Your task to perform on an android device: Open the calendar app, open the side menu, and click the "Day" option Image 0: 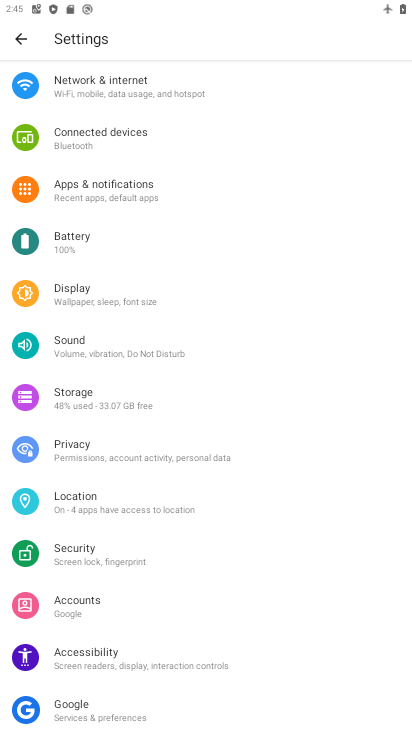
Step 0: press home button
Your task to perform on an android device: Open the calendar app, open the side menu, and click the "Day" option Image 1: 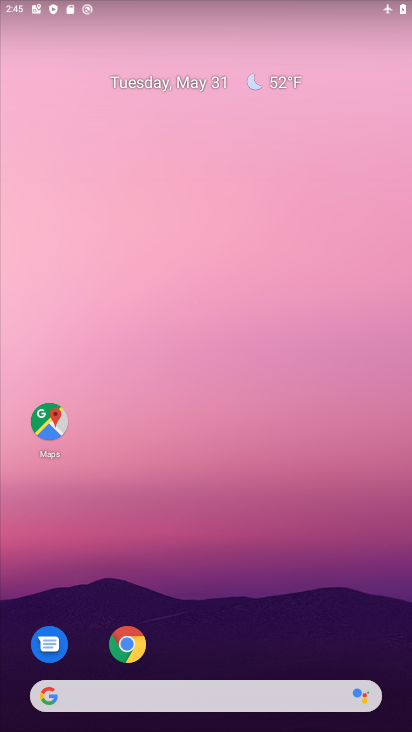
Step 1: drag from (104, 720) to (65, 135)
Your task to perform on an android device: Open the calendar app, open the side menu, and click the "Day" option Image 2: 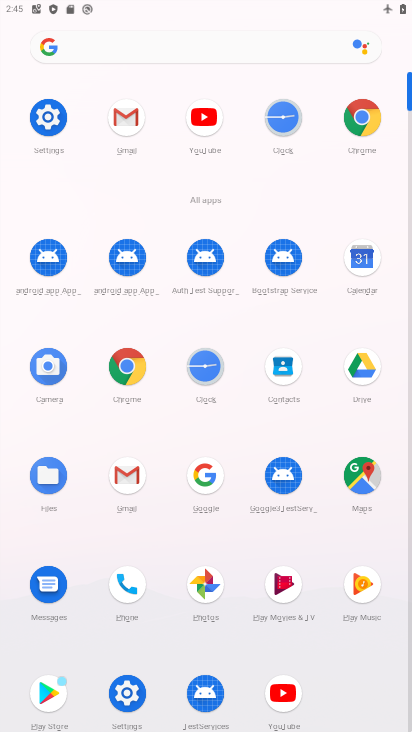
Step 2: click (349, 265)
Your task to perform on an android device: Open the calendar app, open the side menu, and click the "Day" option Image 3: 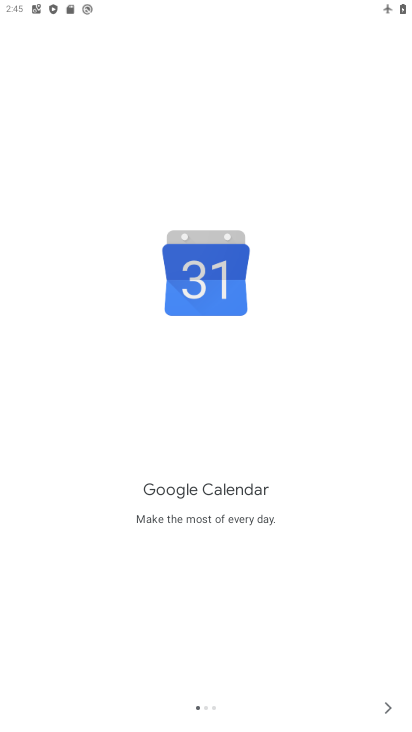
Step 3: click (384, 714)
Your task to perform on an android device: Open the calendar app, open the side menu, and click the "Day" option Image 4: 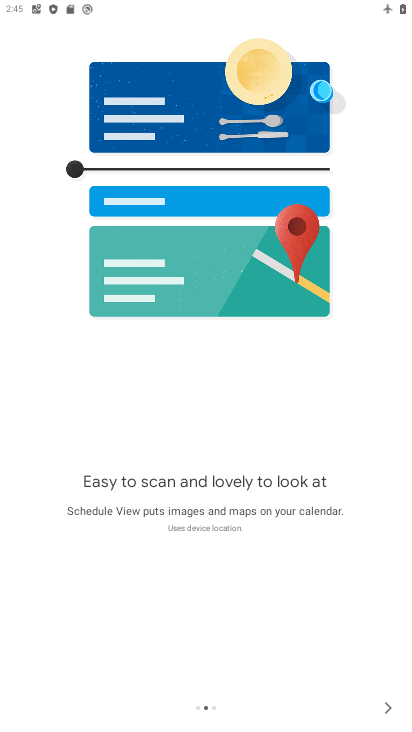
Step 4: click (384, 714)
Your task to perform on an android device: Open the calendar app, open the side menu, and click the "Day" option Image 5: 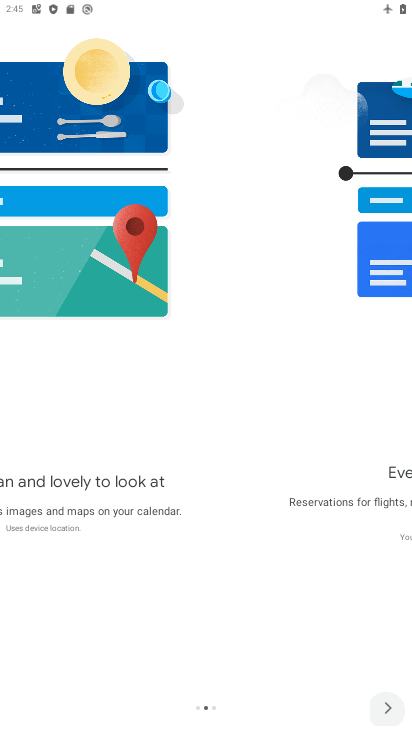
Step 5: click (384, 714)
Your task to perform on an android device: Open the calendar app, open the side menu, and click the "Day" option Image 6: 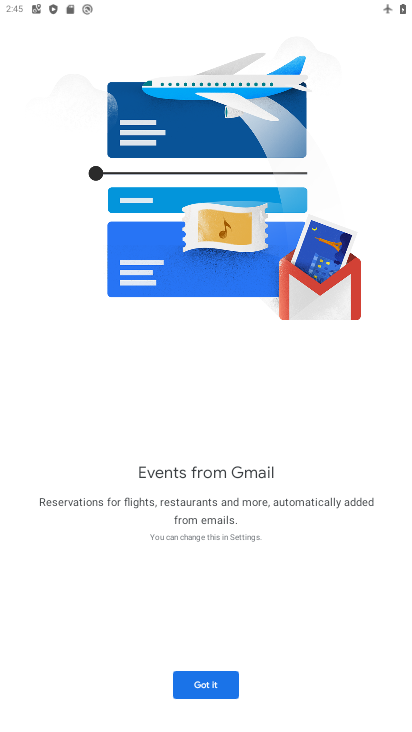
Step 6: click (197, 689)
Your task to perform on an android device: Open the calendar app, open the side menu, and click the "Day" option Image 7: 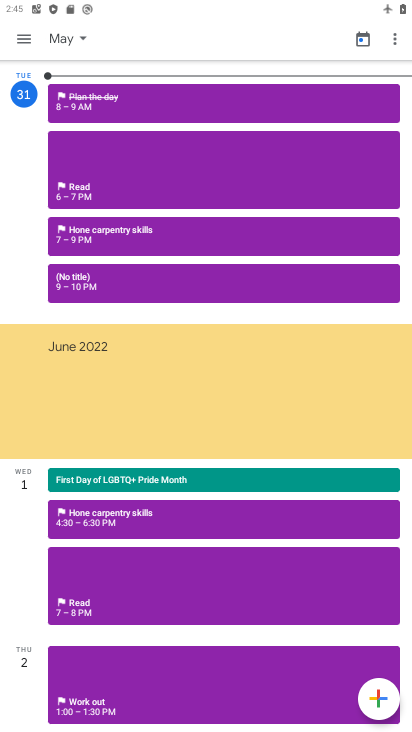
Step 7: click (12, 31)
Your task to perform on an android device: Open the calendar app, open the side menu, and click the "Day" option Image 8: 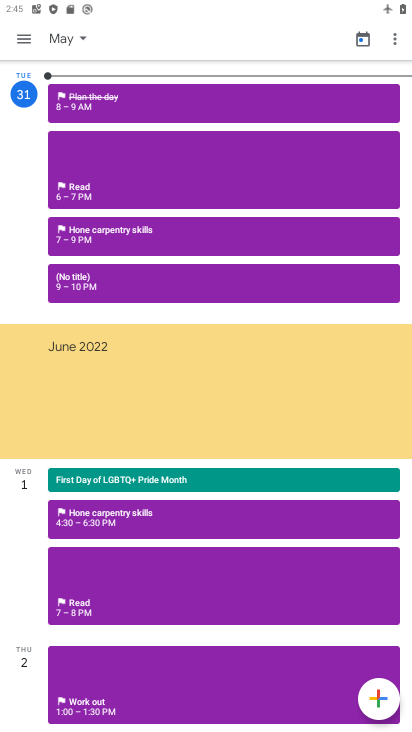
Step 8: click (31, 41)
Your task to perform on an android device: Open the calendar app, open the side menu, and click the "Day" option Image 9: 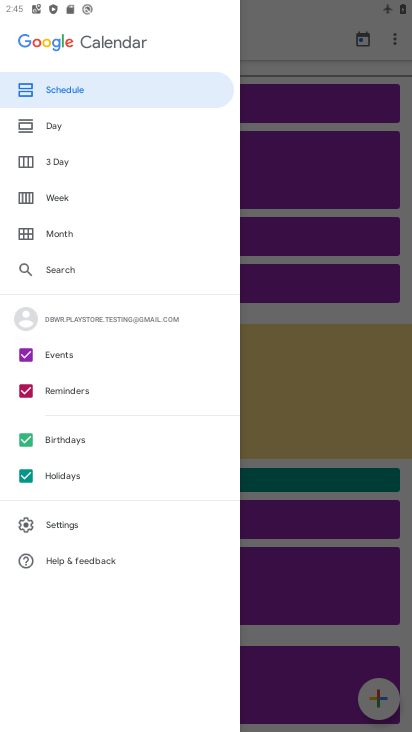
Step 9: click (49, 128)
Your task to perform on an android device: Open the calendar app, open the side menu, and click the "Day" option Image 10: 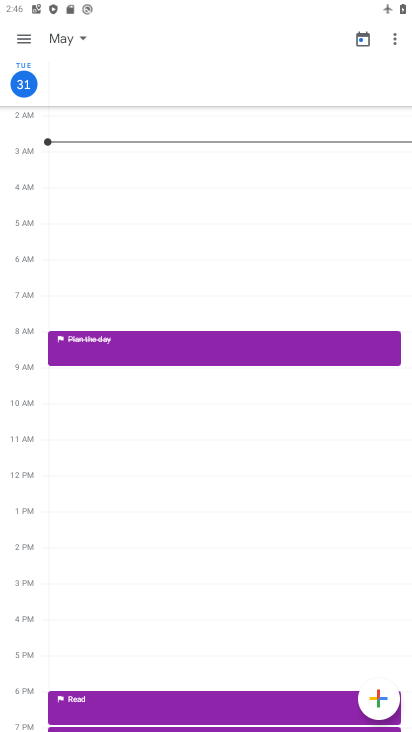
Step 10: task complete